Your task to perform on an android device: Open accessibility settings Image 0: 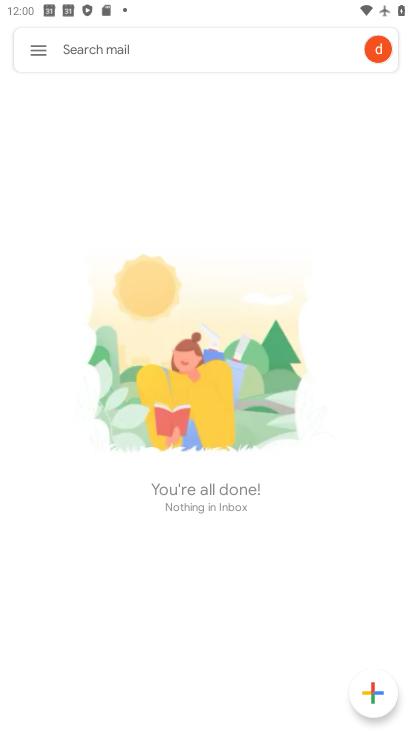
Step 0: press home button
Your task to perform on an android device: Open accessibility settings Image 1: 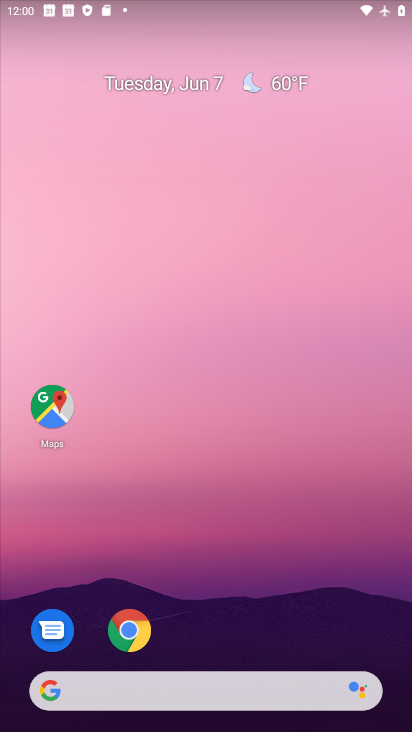
Step 1: drag from (281, 432) to (133, 73)
Your task to perform on an android device: Open accessibility settings Image 2: 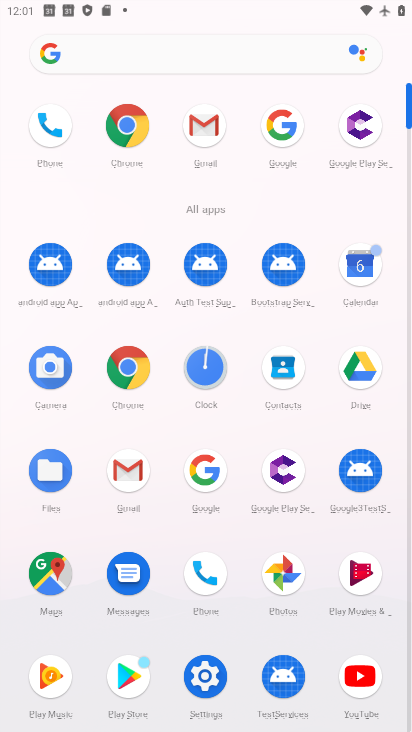
Step 2: click (207, 677)
Your task to perform on an android device: Open accessibility settings Image 3: 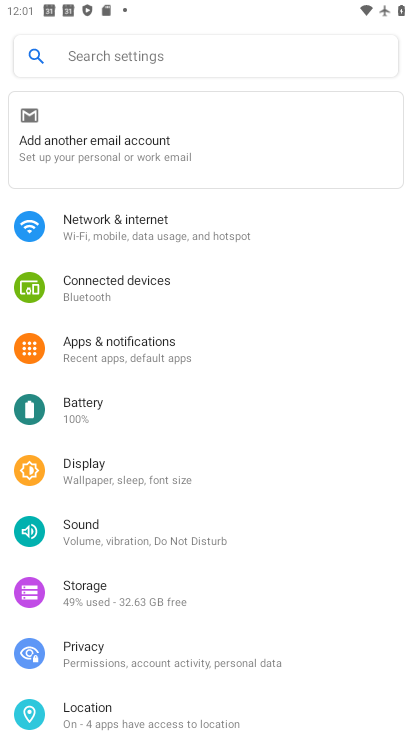
Step 3: drag from (151, 654) to (247, 155)
Your task to perform on an android device: Open accessibility settings Image 4: 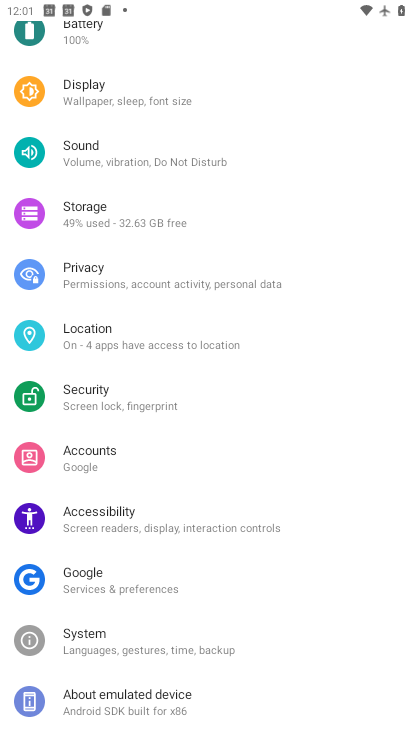
Step 4: click (135, 526)
Your task to perform on an android device: Open accessibility settings Image 5: 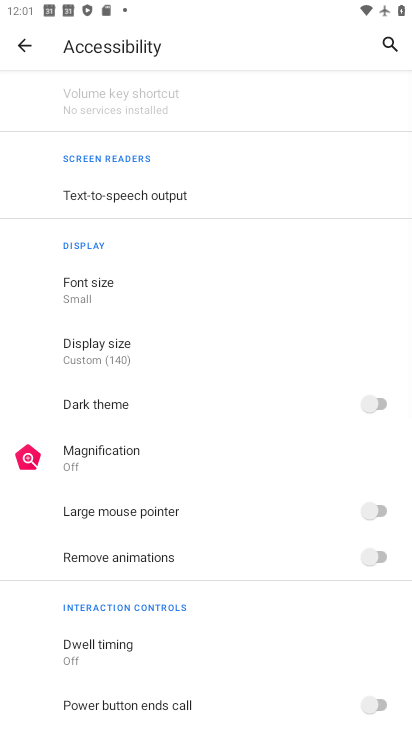
Step 5: task complete